Your task to perform on an android device: Open accessibility settings Image 0: 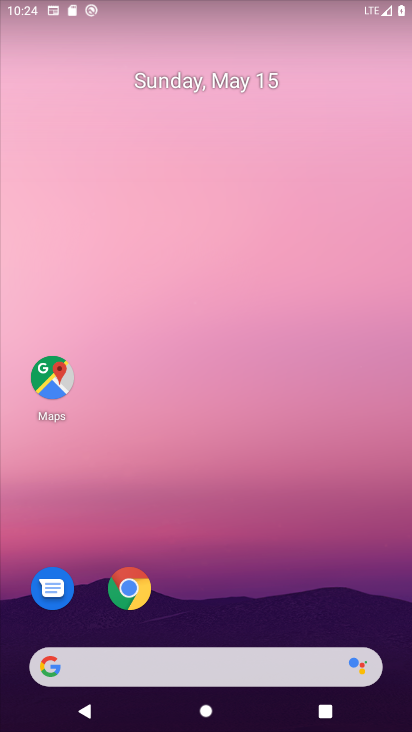
Step 0: drag from (231, 591) to (237, 187)
Your task to perform on an android device: Open accessibility settings Image 1: 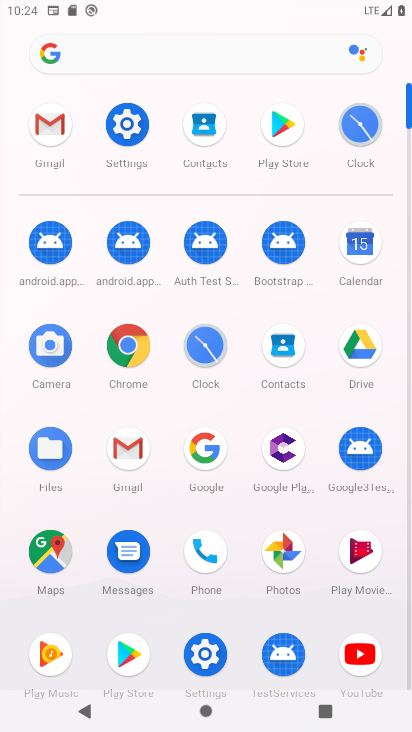
Step 1: click (118, 122)
Your task to perform on an android device: Open accessibility settings Image 2: 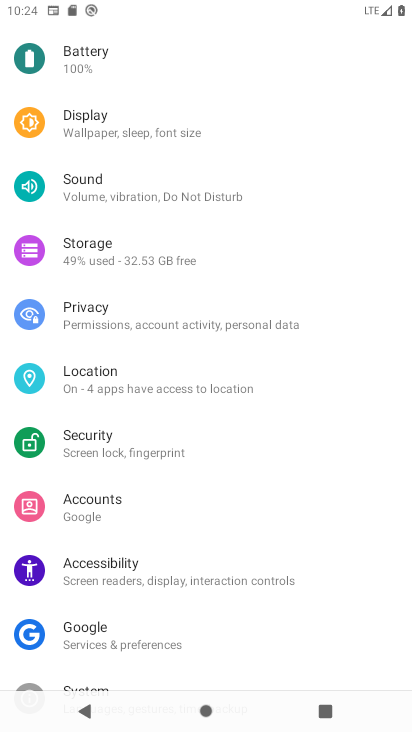
Step 2: click (96, 570)
Your task to perform on an android device: Open accessibility settings Image 3: 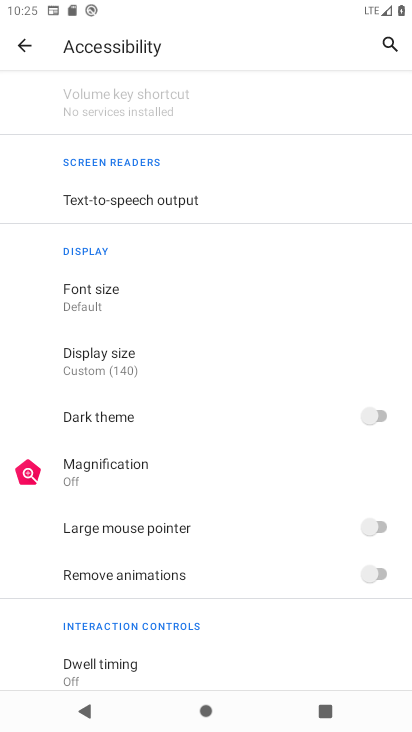
Step 3: task complete